Your task to perform on an android device: turn smart compose on in the gmail app Image 0: 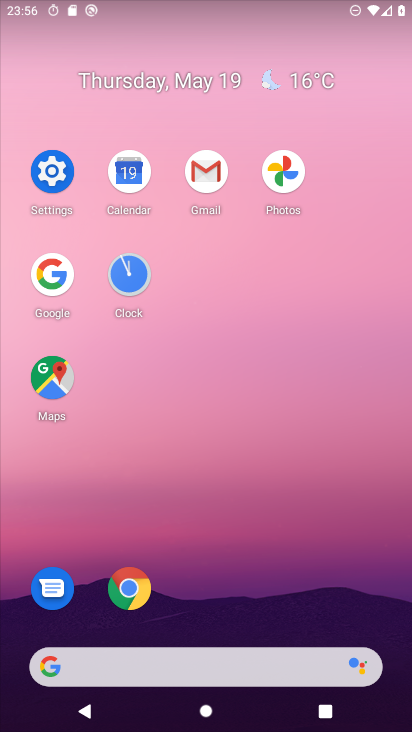
Step 0: click (216, 169)
Your task to perform on an android device: turn smart compose on in the gmail app Image 1: 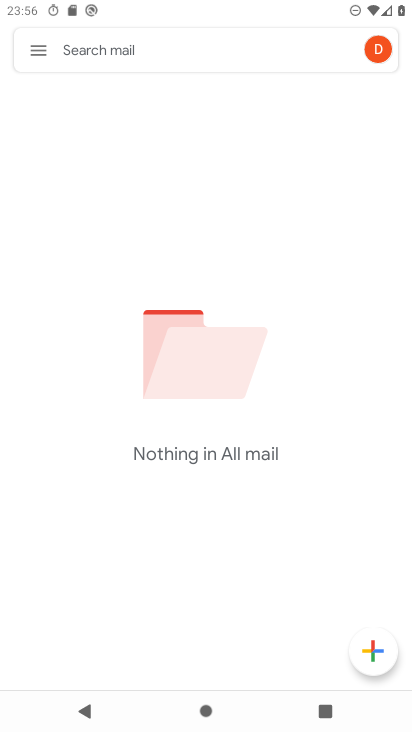
Step 1: click (45, 43)
Your task to perform on an android device: turn smart compose on in the gmail app Image 2: 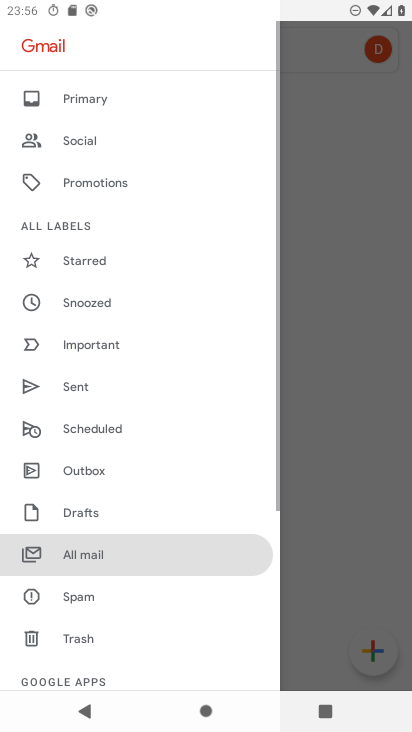
Step 2: drag from (176, 606) to (261, 168)
Your task to perform on an android device: turn smart compose on in the gmail app Image 3: 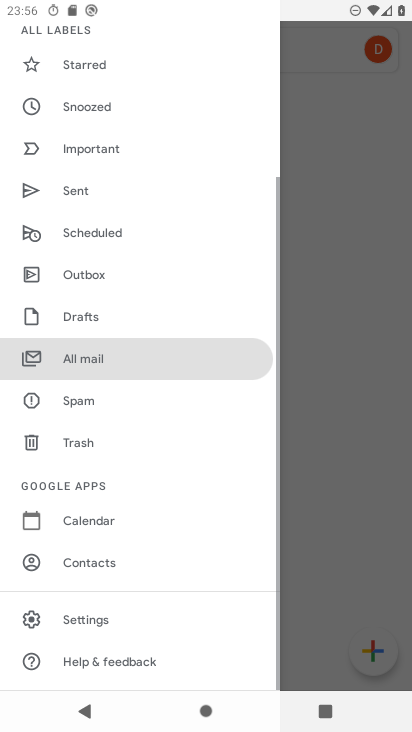
Step 3: click (140, 627)
Your task to perform on an android device: turn smart compose on in the gmail app Image 4: 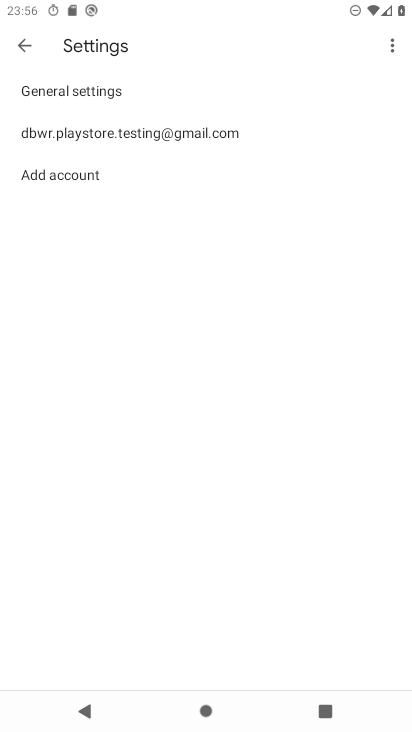
Step 4: click (163, 140)
Your task to perform on an android device: turn smart compose on in the gmail app Image 5: 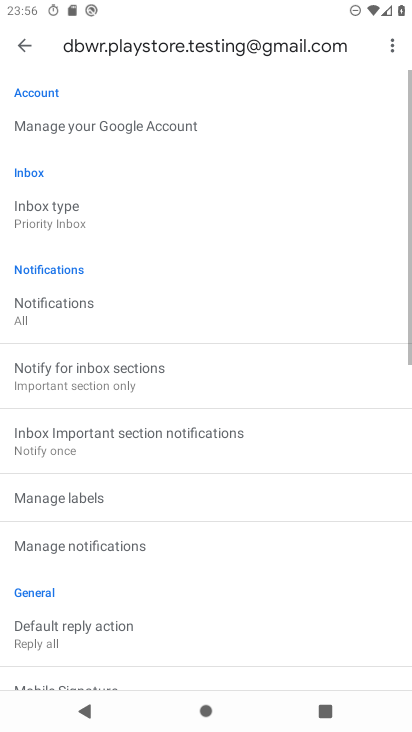
Step 5: task complete